Your task to perform on an android device: open app "Google Photos" (install if not already installed) Image 0: 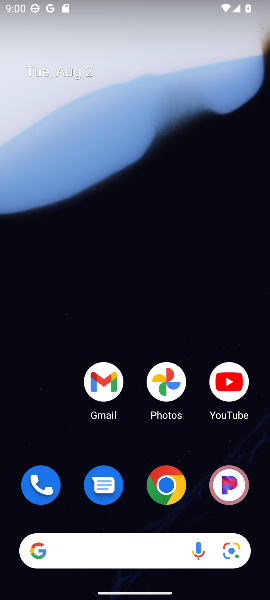
Step 0: drag from (130, 503) to (261, 297)
Your task to perform on an android device: open app "Google Photos" (install if not already installed) Image 1: 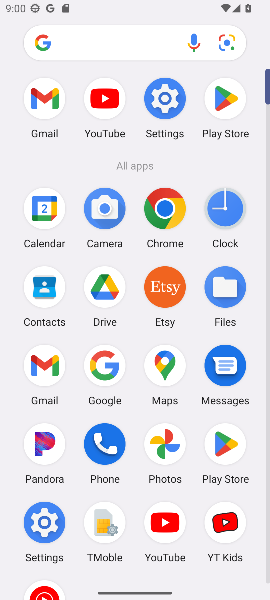
Step 1: click (51, 359)
Your task to perform on an android device: open app "Google Photos" (install if not already installed) Image 2: 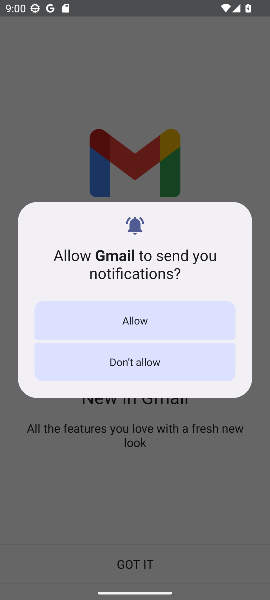
Step 2: click (156, 312)
Your task to perform on an android device: open app "Google Photos" (install if not already installed) Image 3: 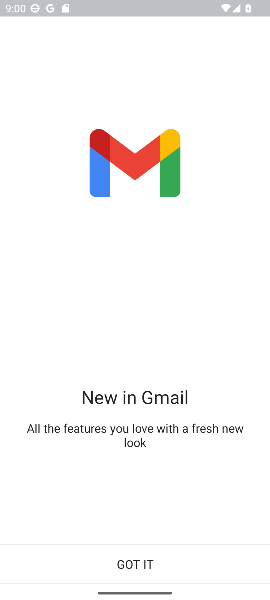
Step 3: press home button
Your task to perform on an android device: open app "Google Photos" (install if not already installed) Image 4: 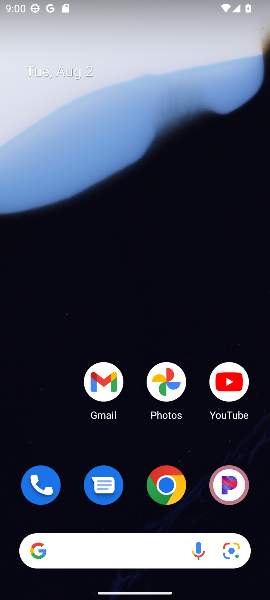
Step 4: drag from (147, 506) to (156, 3)
Your task to perform on an android device: open app "Google Photos" (install if not already installed) Image 5: 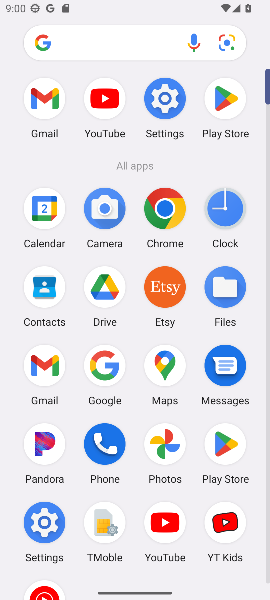
Step 5: click (158, 451)
Your task to perform on an android device: open app "Google Photos" (install if not already installed) Image 6: 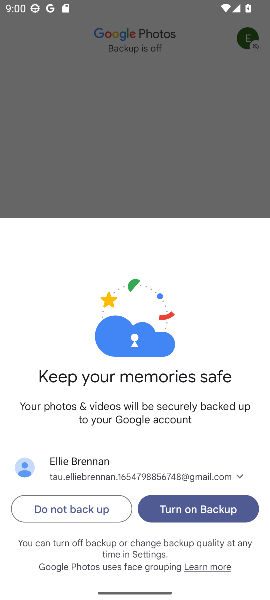
Step 6: click (61, 502)
Your task to perform on an android device: open app "Google Photos" (install if not already installed) Image 7: 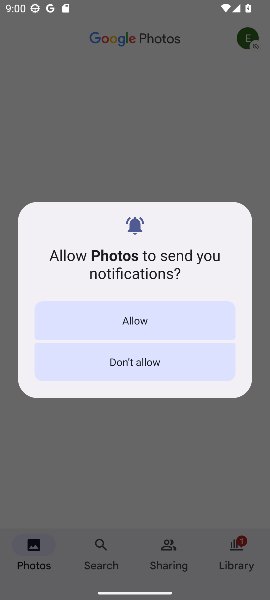
Step 7: task complete